Your task to perform on an android device: Go to location settings Image 0: 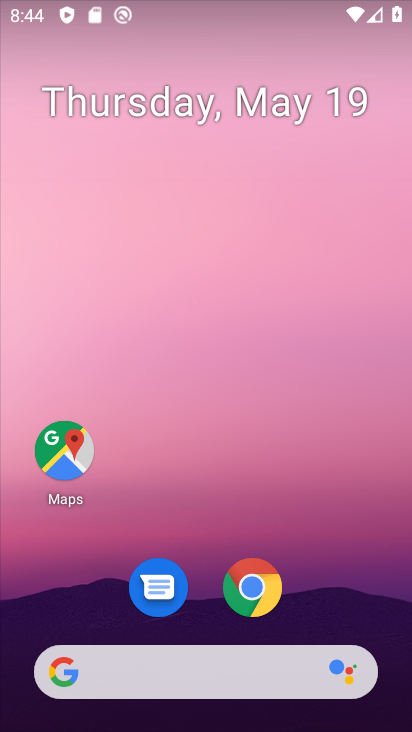
Step 0: drag from (355, 612) to (191, 187)
Your task to perform on an android device: Go to location settings Image 1: 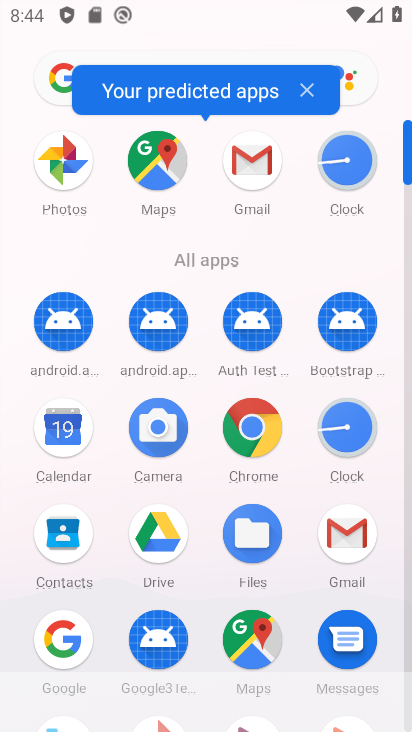
Step 1: drag from (374, 594) to (303, 118)
Your task to perform on an android device: Go to location settings Image 2: 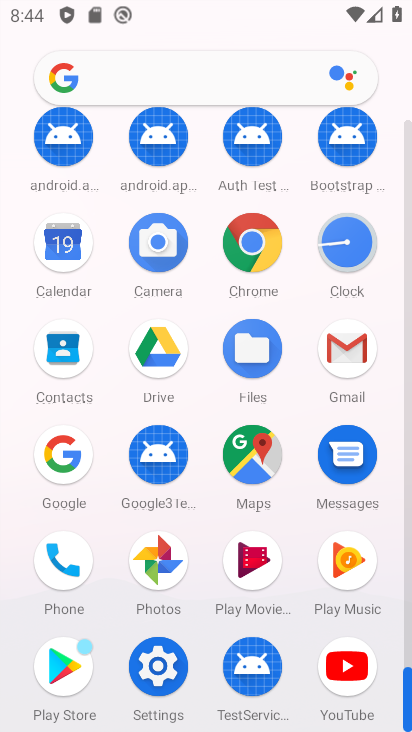
Step 2: click (159, 659)
Your task to perform on an android device: Go to location settings Image 3: 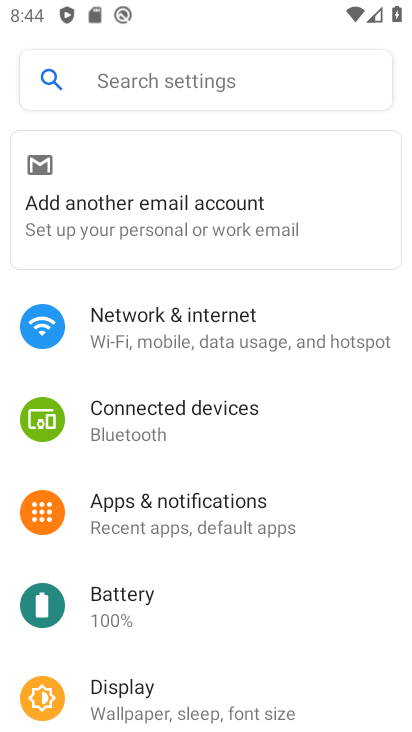
Step 3: drag from (252, 417) to (274, 92)
Your task to perform on an android device: Go to location settings Image 4: 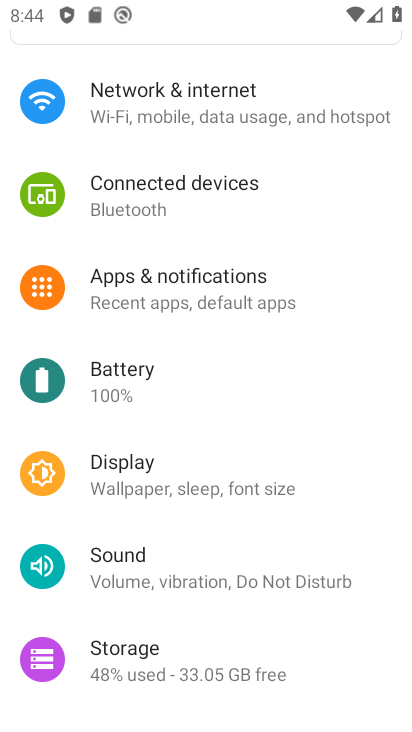
Step 4: drag from (188, 568) to (239, 253)
Your task to perform on an android device: Go to location settings Image 5: 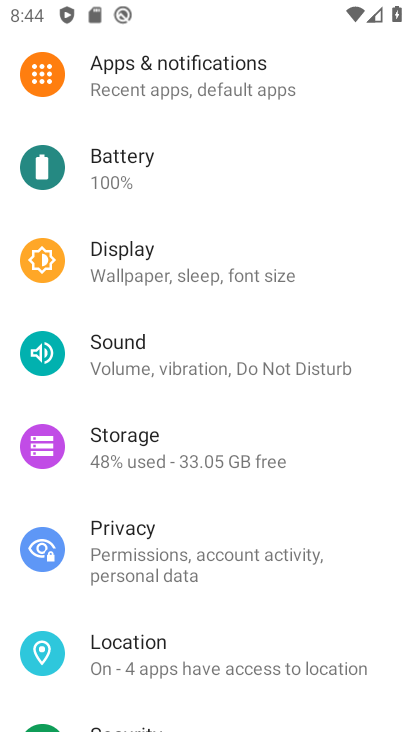
Step 5: click (141, 638)
Your task to perform on an android device: Go to location settings Image 6: 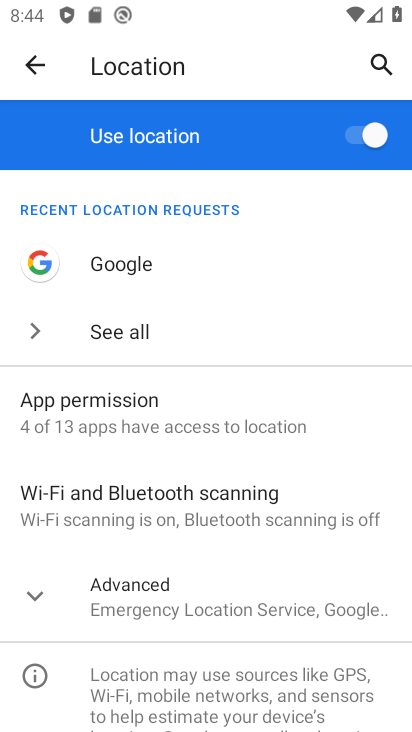
Step 6: task complete